Your task to perform on an android device: see sites visited before in the chrome app Image 0: 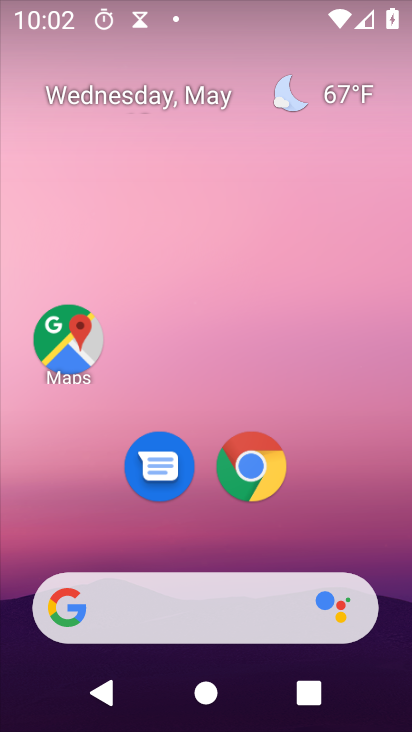
Step 0: click (276, 468)
Your task to perform on an android device: see sites visited before in the chrome app Image 1: 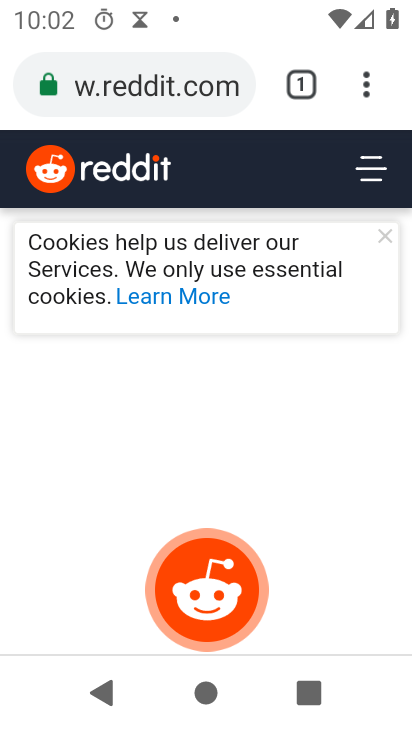
Step 1: click (363, 88)
Your task to perform on an android device: see sites visited before in the chrome app Image 2: 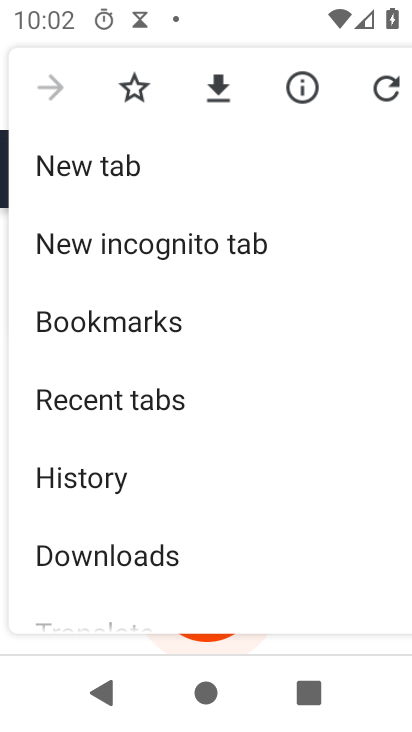
Step 2: click (84, 478)
Your task to perform on an android device: see sites visited before in the chrome app Image 3: 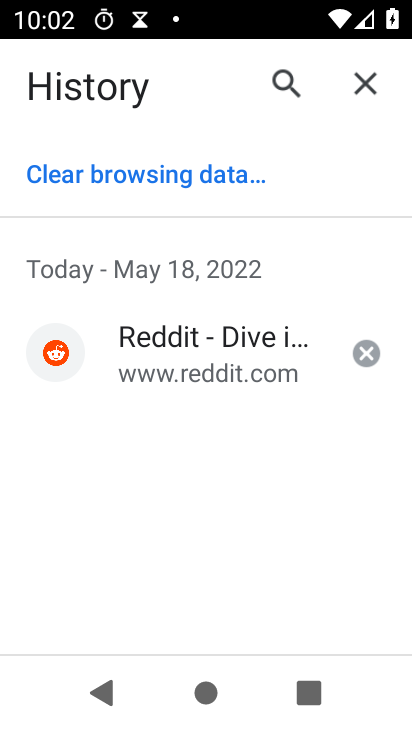
Step 3: task complete